Your task to perform on an android device: open app "Reddit" (install if not already installed) Image 0: 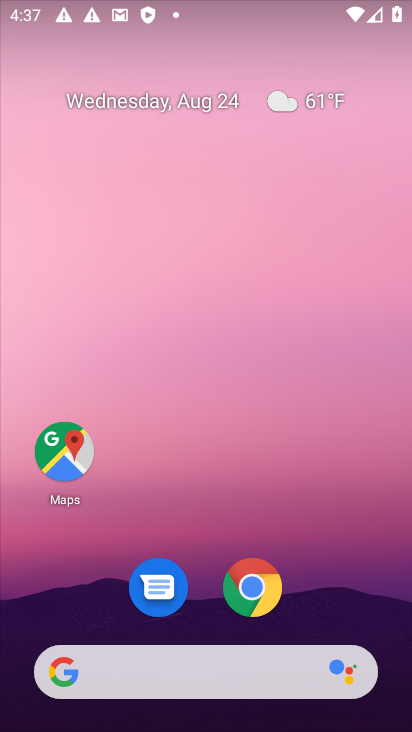
Step 0: press home button
Your task to perform on an android device: open app "Reddit" (install if not already installed) Image 1: 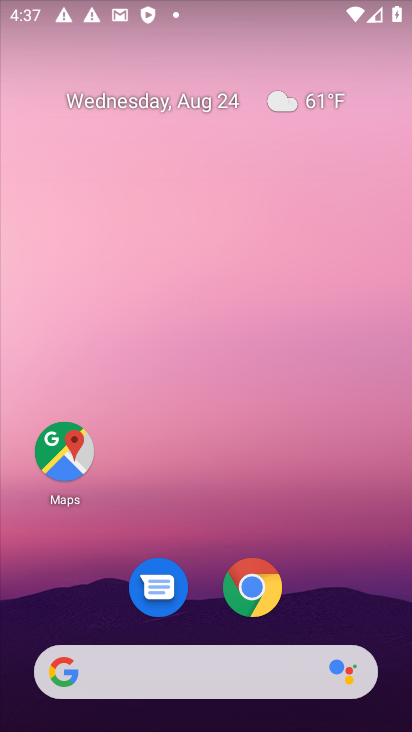
Step 1: drag from (183, 654) to (215, 7)
Your task to perform on an android device: open app "Reddit" (install if not already installed) Image 2: 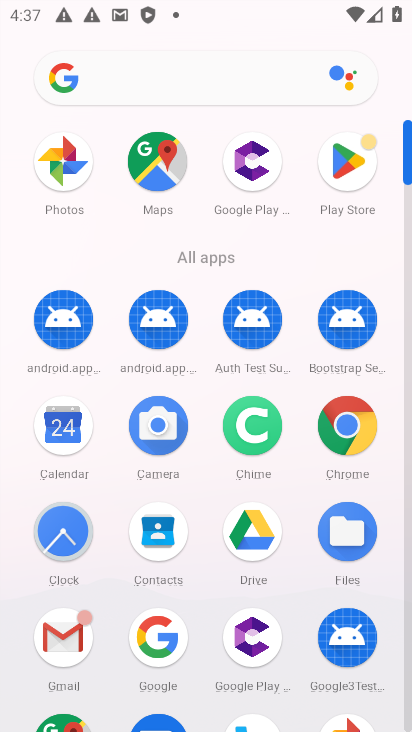
Step 2: click (350, 163)
Your task to perform on an android device: open app "Reddit" (install if not already installed) Image 3: 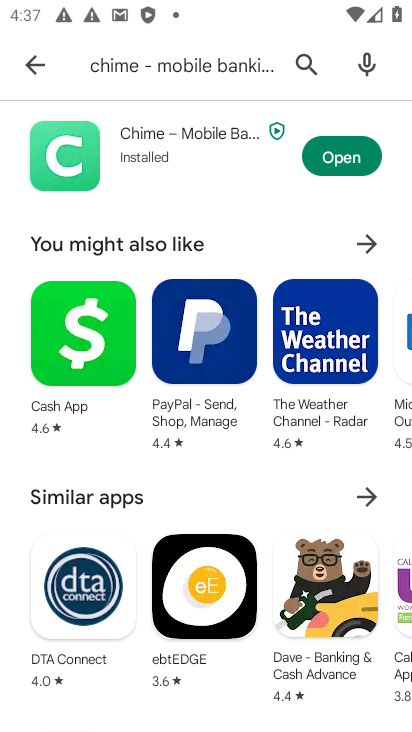
Step 3: press back button
Your task to perform on an android device: open app "Reddit" (install if not already installed) Image 4: 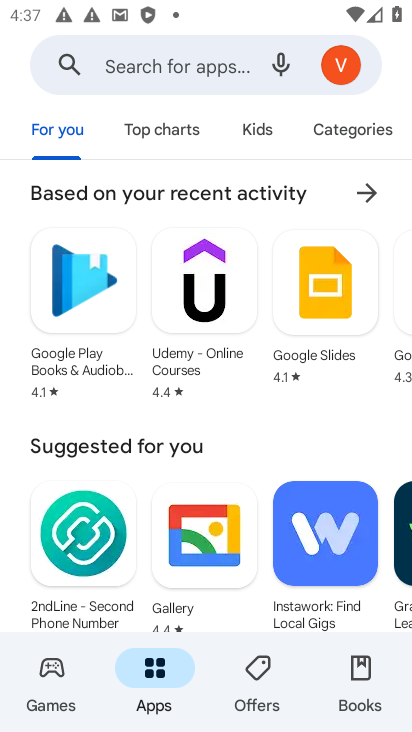
Step 4: click (239, 65)
Your task to perform on an android device: open app "Reddit" (install if not already installed) Image 5: 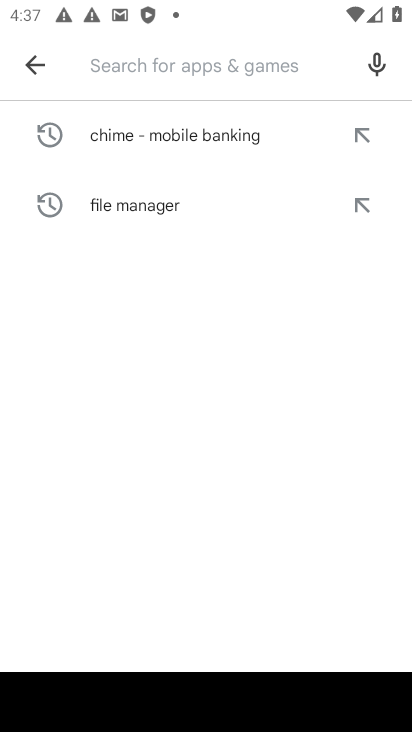
Step 5: type "Reddit"
Your task to perform on an android device: open app "Reddit" (install if not already installed) Image 6: 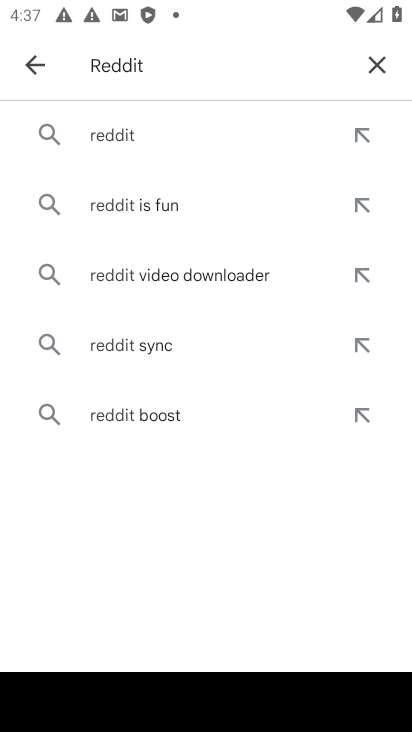
Step 6: click (131, 135)
Your task to perform on an android device: open app "Reddit" (install if not already installed) Image 7: 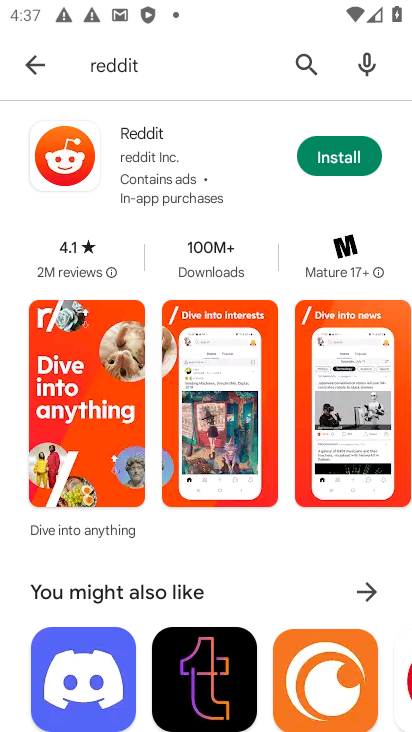
Step 7: click (337, 163)
Your task to perform on an android device: open app "Reddit" (install if not already installed) Image 8: 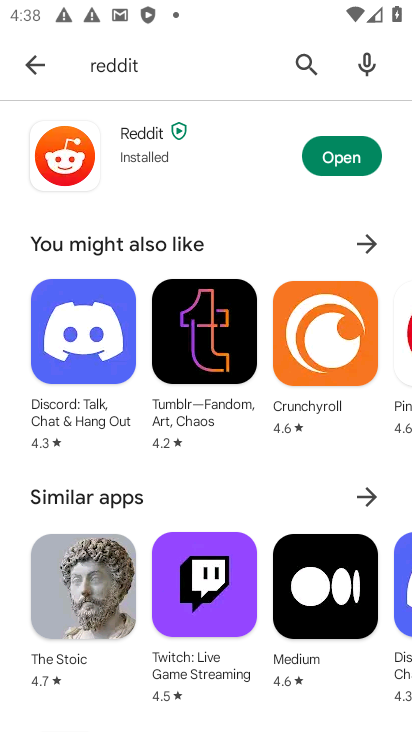
Step 8: click (344, 160)
Your task to perform on an android device: open app "Reddit" (install if not already installed) Image 9: 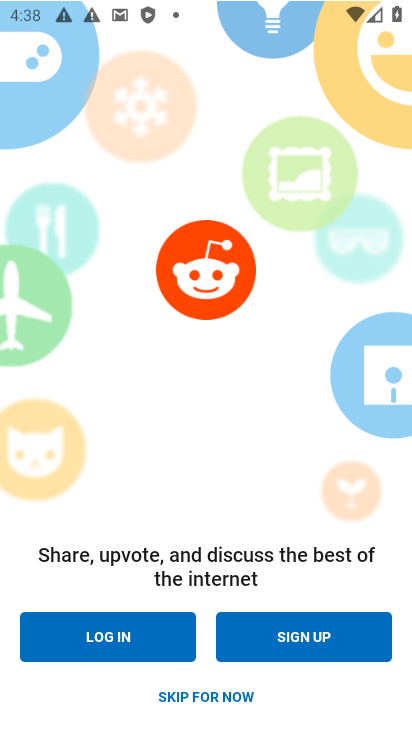
Step 9: task complete